Your task to perform on an android device: Open maps Image 0: 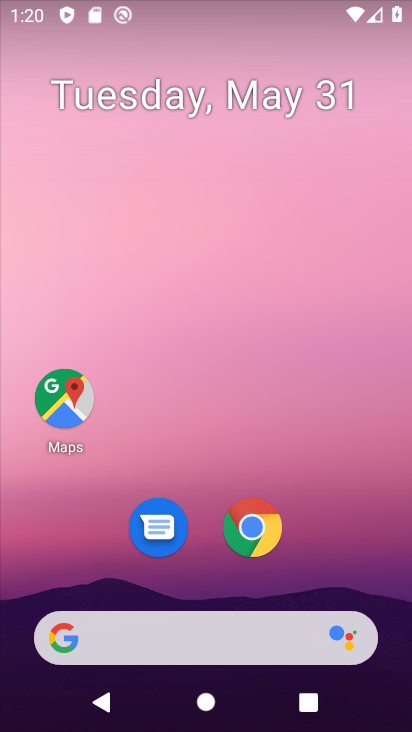
Step 0: drag from (333, 526) to (274, 1)
Your task to perform on an android device: Open maps Image 1: 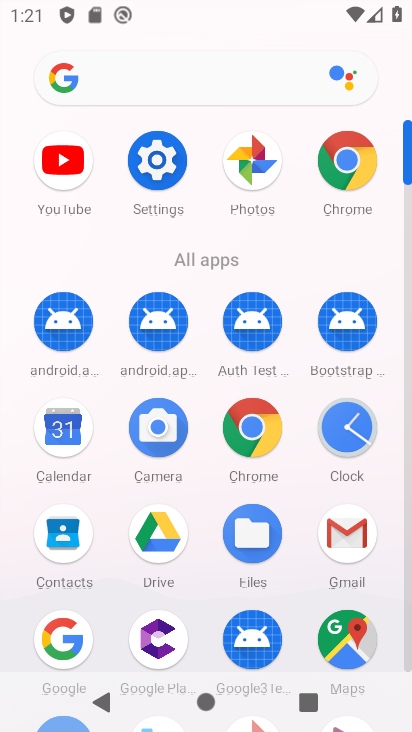
Step 1: click (350, 634)
Your task to perform on an android device: Open maps Image 2: 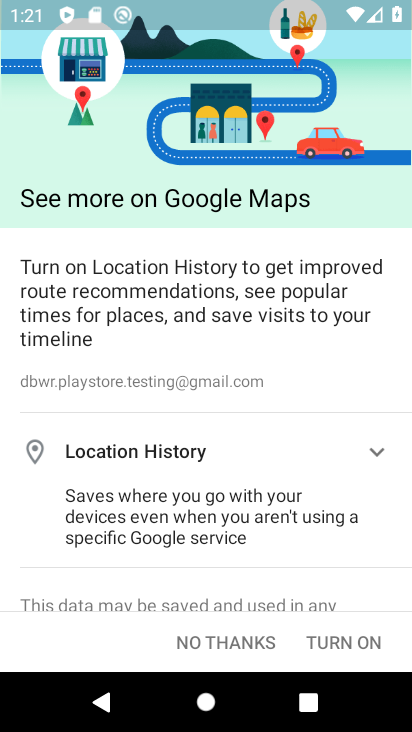
Step 2: task complete